Your task to perform on an android device: Is it going to rain this weekend? Image 0: 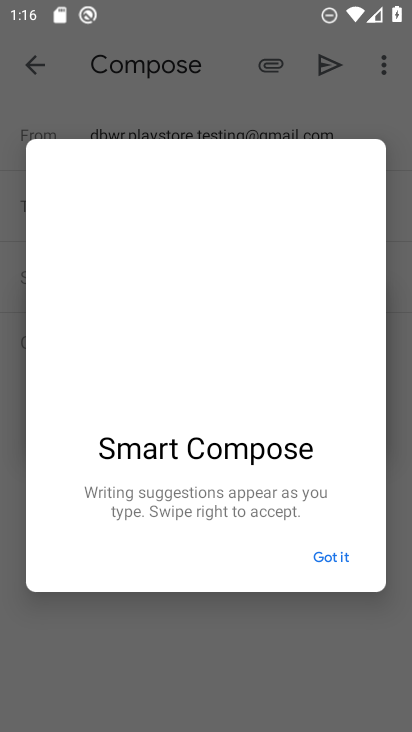
Step 0: press home button
Your task to perform on an android device: Is it going to rain this weekend? Image 1: 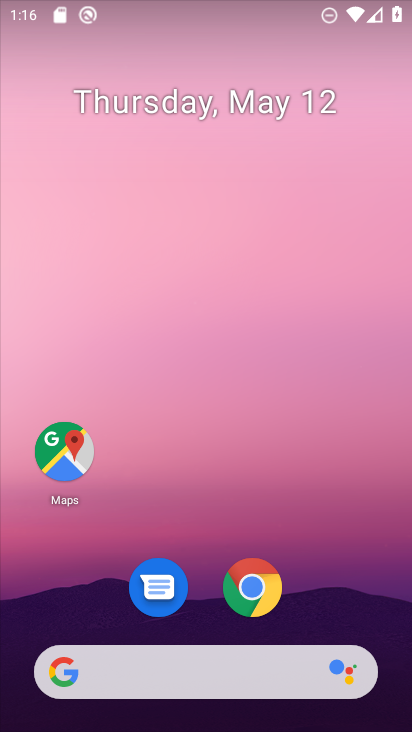
Step 1: drag from (332, 575) to (209, 30)
Your task to perform on an android device: Is it going to rain this weekend? Image 2: 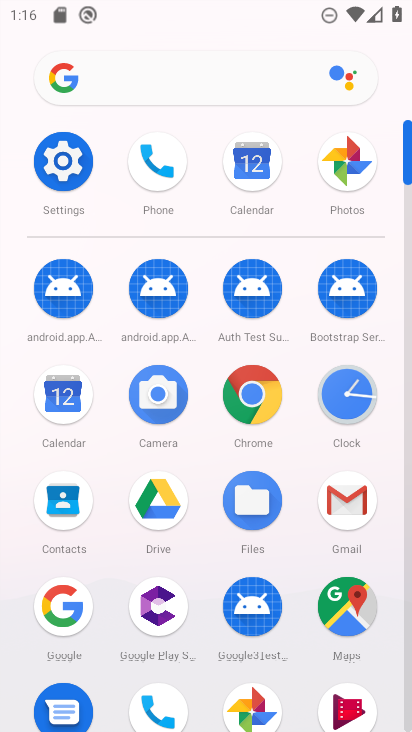
Step 2: click (56, 604)
Your task to perform on an android device: Is it going to rain this weekend? Image 3: 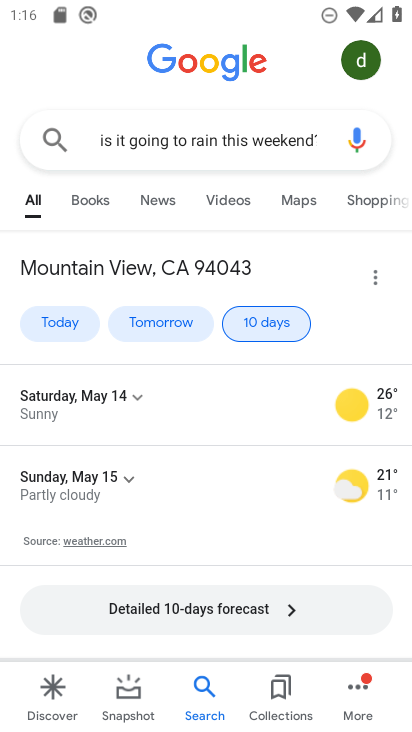
Step 3: task complete